Your task to perform on an android device: allow cookies in the chrome app Image 0: 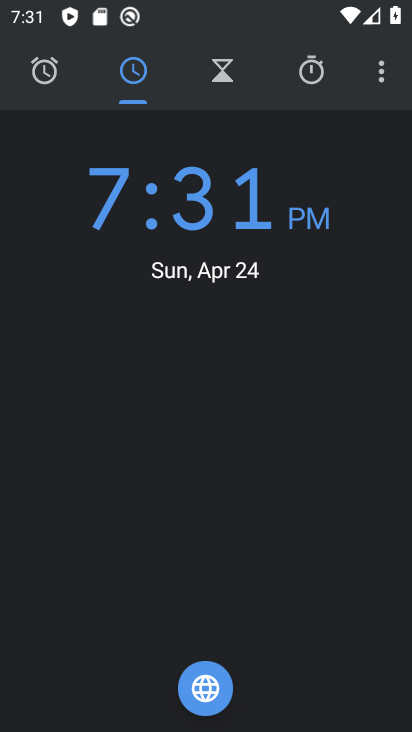
Step 0: press home button
Your task to perform on an android device: allow cookies in the chrome app Image 1: 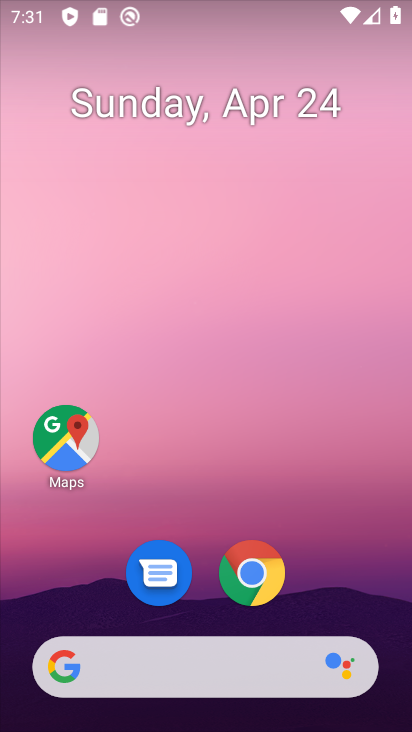
Step 1: drag from (204, 620) to (158, 32)
Your task to perform on an android device: allow cookies in the chrome app Image 2: 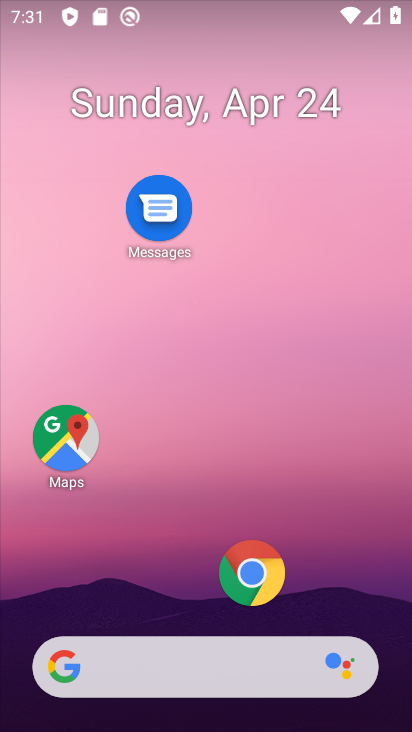
Step 2: drag from (214, 626) to (191, 70)
Your task to perform on an android device: allow cookies in the chrome app Image 3: 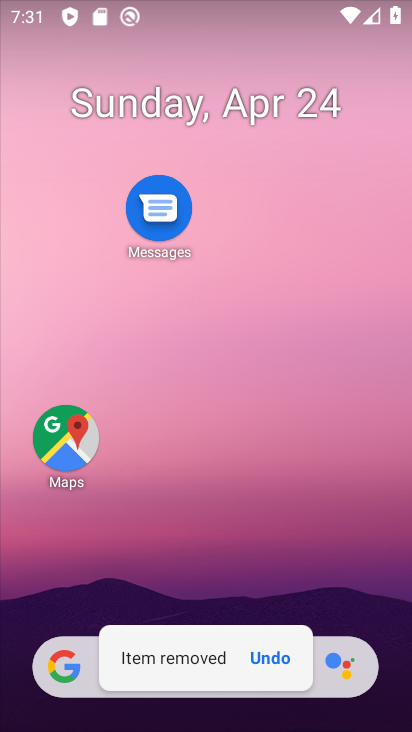
Step 3: drag from (229, 603) to (352, 27)
Your task to perform on an android device: allow cookies in the chrome app Image 4: 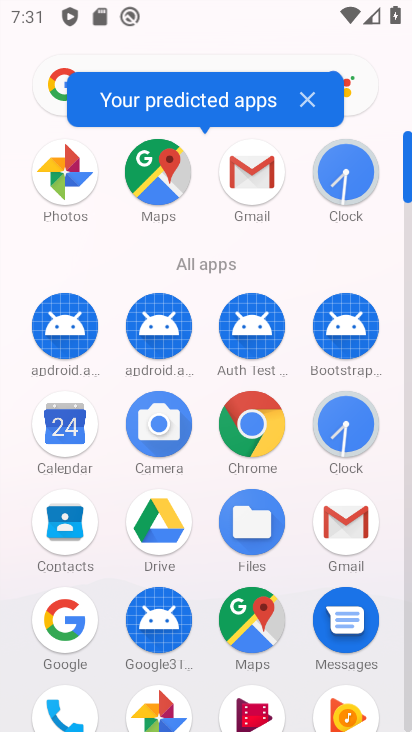
Step 4: click (266, 428)
Your task to perform on an android device: allow cookies in the chrome app Image 5: 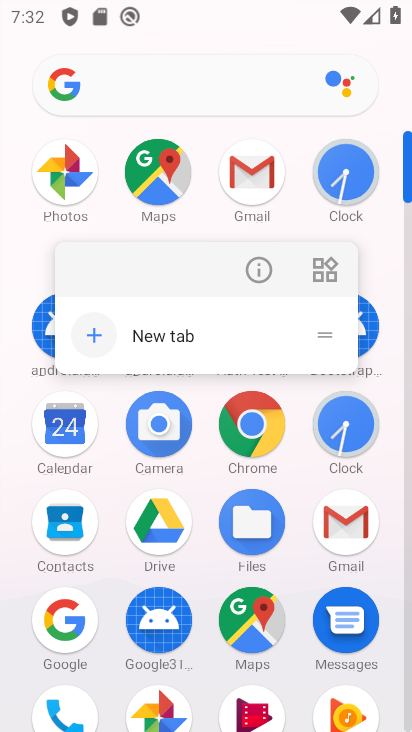
Step 5: click (232, 436)
Your task to perform on an android device: allow cookies in the chrome app Image 6: 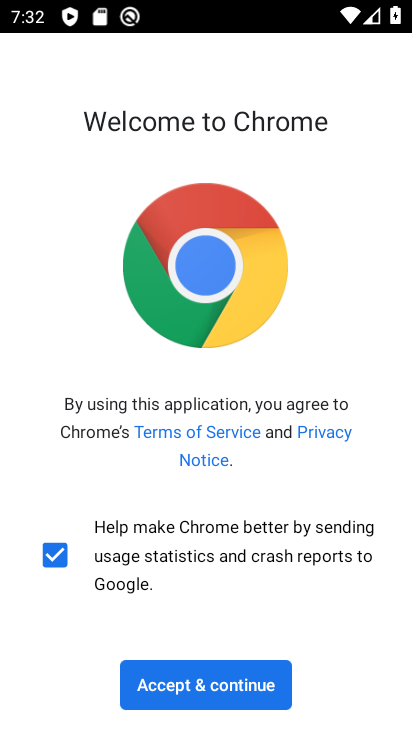
Step 6: click (239, 683)
Your task to perform on an android device: allow cookies in the chrome app Image 7: 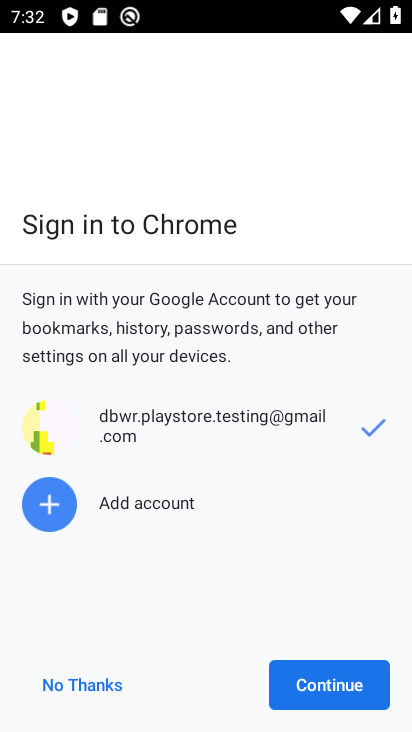
Step 7: click (307, 691)
Your task to perform on an android device: allow cookies in the chrome app Image 8: 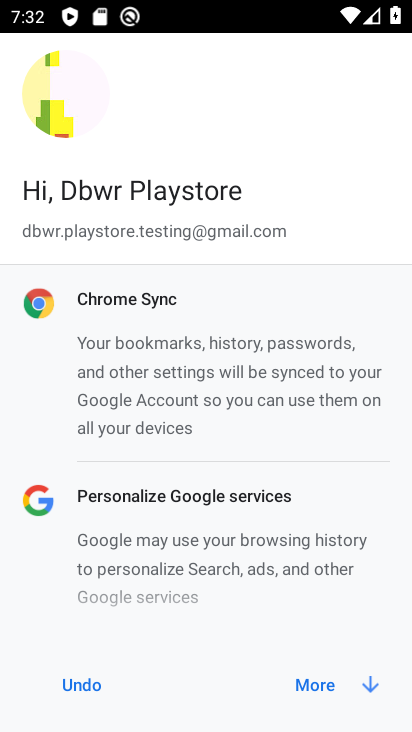
Step 8: click (355, 704)
Your task to perform on an android device: allow cookies in the chrome app Image 9: 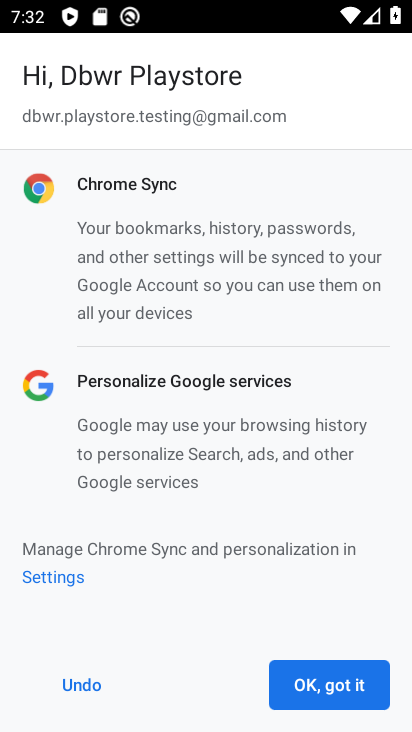
Step 9: click (354, 704)
Your task to perform on an android device: allow cookies in the chrome app Image 10: 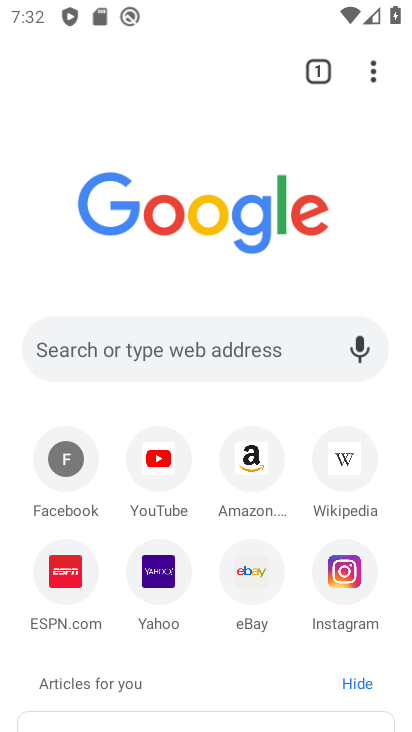
Step 10: click (371, 70)
Your task to perform on an android device: allow cookies in the chrome app Image 11: 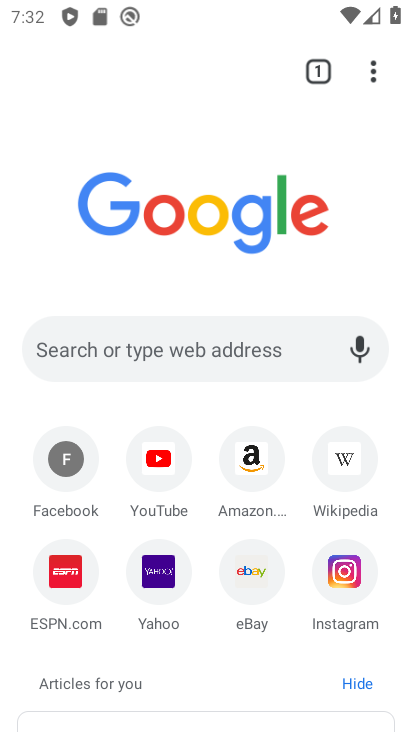
Step 11: click (373, 70)
Your task to perform on an android device: allow cookies in the chrome app Image 12: 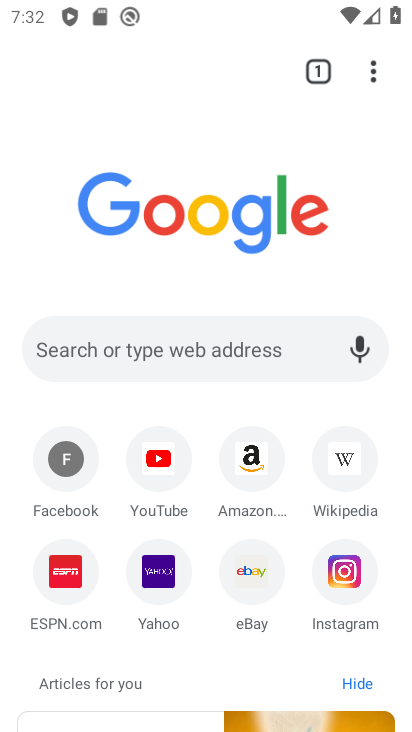
Step 12: drag from (374, 76) to (125, 607)
Your task to perform on an android device: allow cookies in the chrome app Image 13: 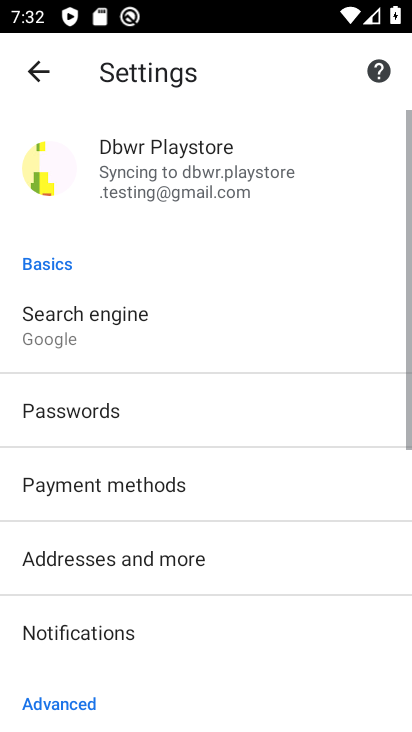
Step 13: drag from (172, 642) to (132, 58)
Your task to perform on an android device: allow cookies in the chrome app Image 14: 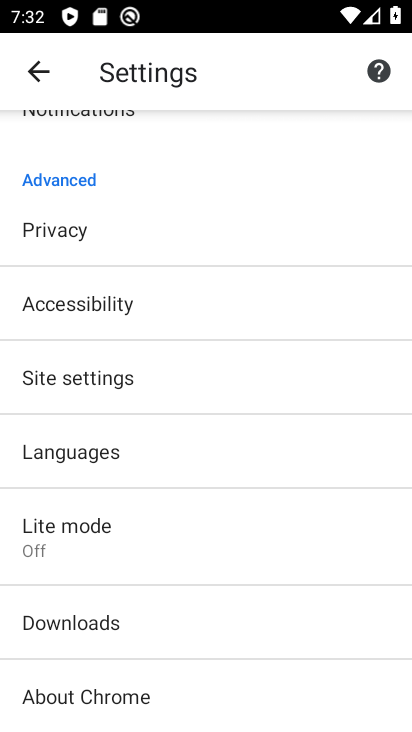
Step 14: click (60, 387)
Your task to perform on an android device: allow cookies in the chrome app Image 15: 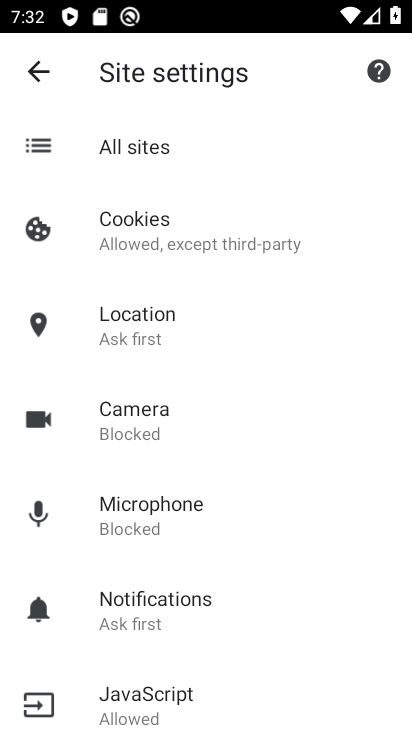
Step 15: click (140, 279)
Your task to perform on an android device: allow cookies in the chrome app Image 16: 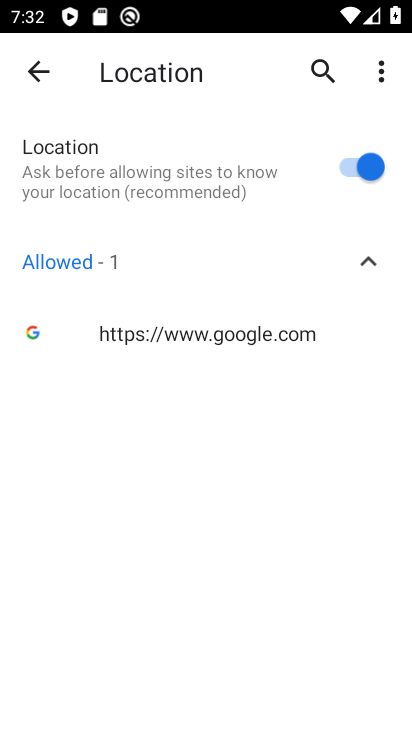
Step 16: click (31, 76)
Your task to perform on an android device: allow cookies in the chrome app Image 17: 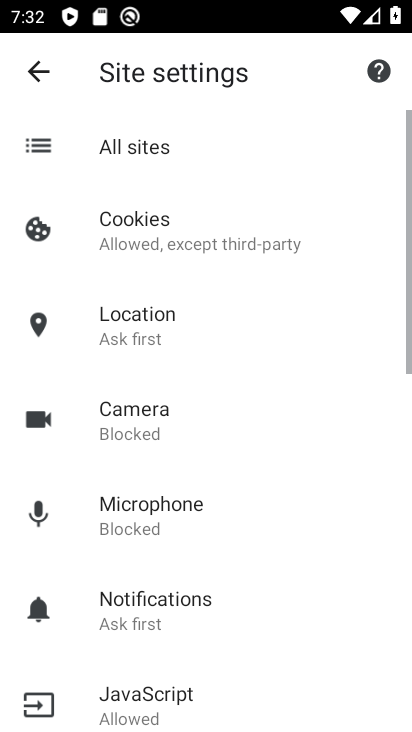
Step 17: click (142, 222)
Your task to perform on an android device: allow cookies in the chrome app Image 18: 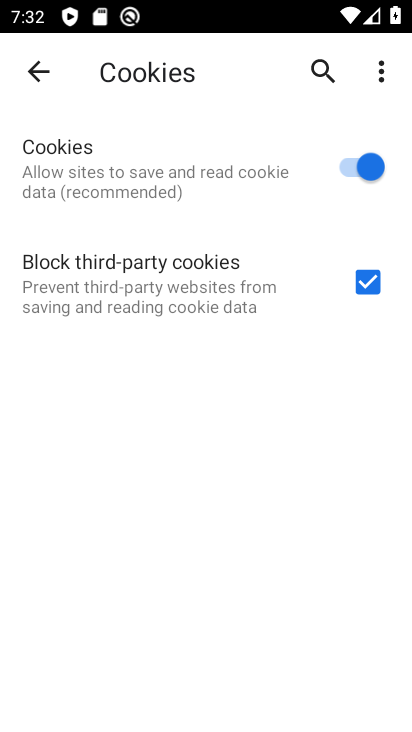
Step 18: task complete